Your task to perform on an android device: clear all cookies in the chrome app Image 0: 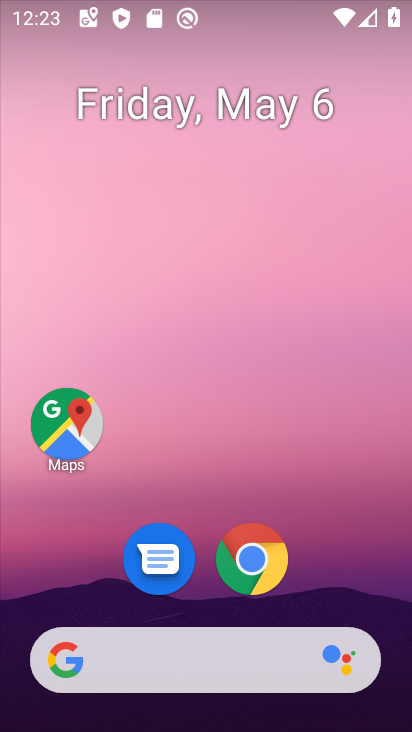
Step 0: click (242, 548)
Your task to perform on an android device: clear all cookies in the chrome app Image 1: 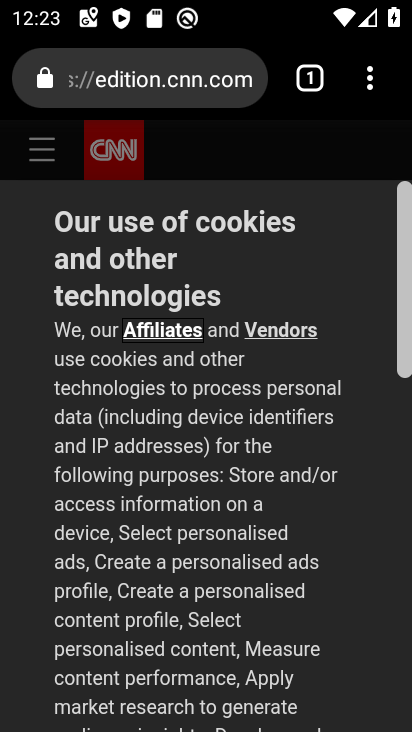
Step 1: click (369, 85)
Your task to perform on an android device: clear all cookies in the chrome app Image 2: 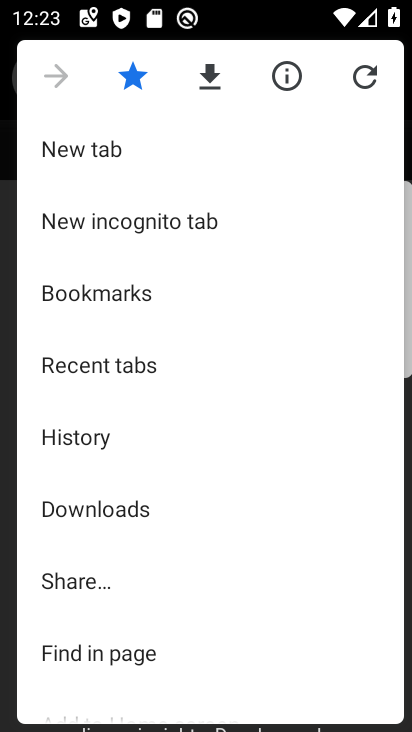
Step 2: click (86, 429)
Your task to perform on an android device: clear all cookies in the chrome app Image 3: 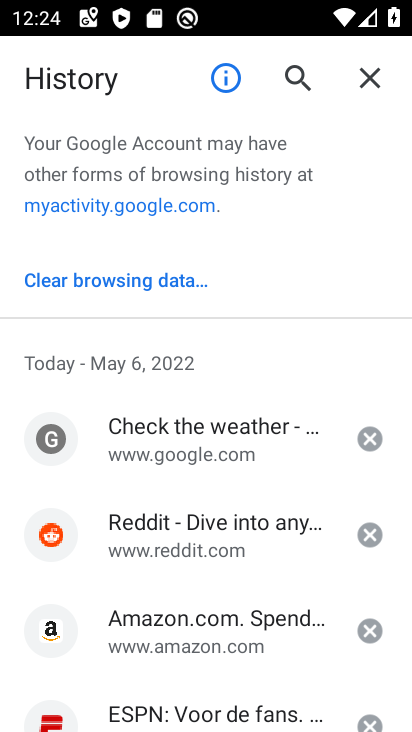
Step 3: click (120, 280)
Your task to perform on an android device: clear all cookies in the chrome app Image 4: 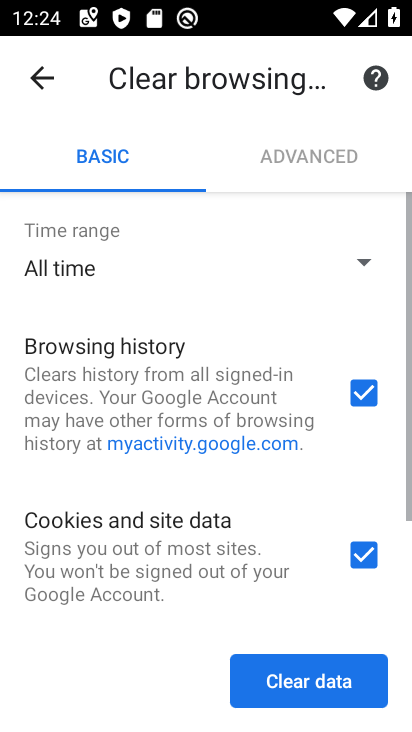
Step 4: click (228, 401)
Your task to perform on an android device: clear all cookies in the chrome app Image 5: 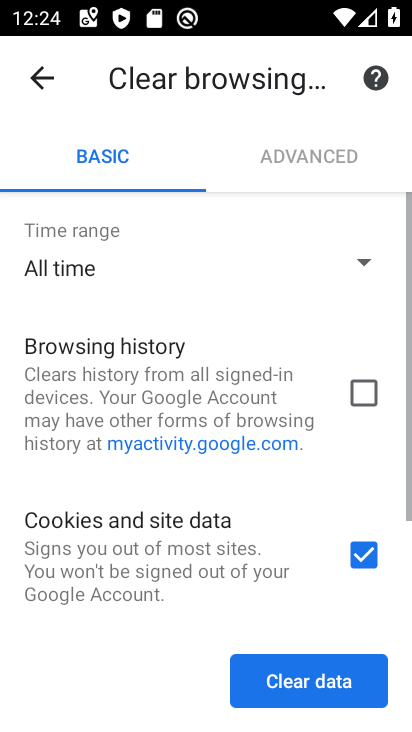
Step 5: drag from (202, 566) to (213, 257)
Your task to perform on an android device: clear all cookies in the chrome app Image 6: 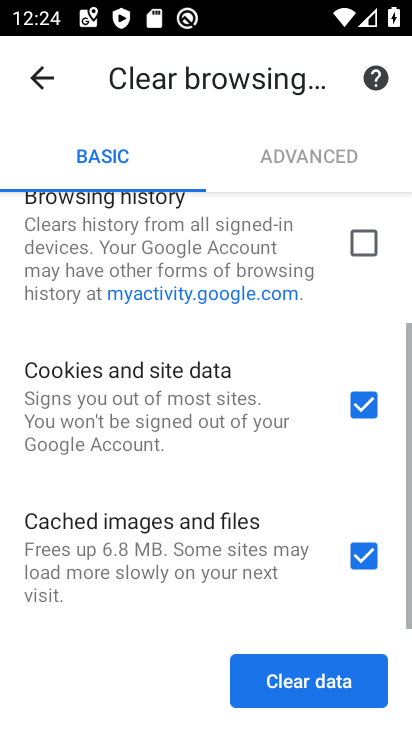
Step 6: click (296, 528)
Your task to perform on an android device: clear all cookies in the chrome app Image 7: 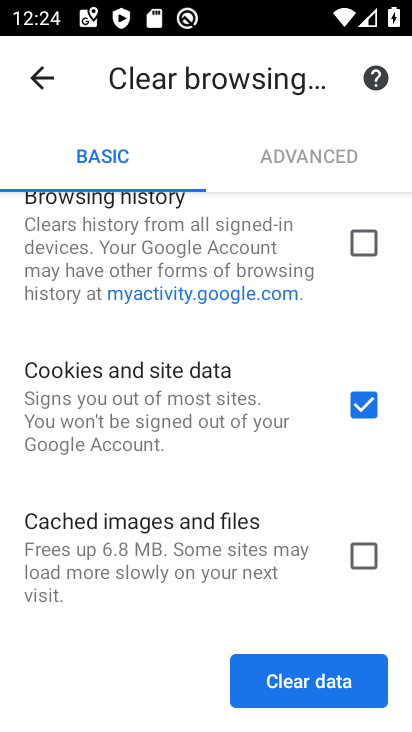
Step 7: click (322, 672)
Your task to perform on an android device: clear all cookies in the chrome app Image 8: 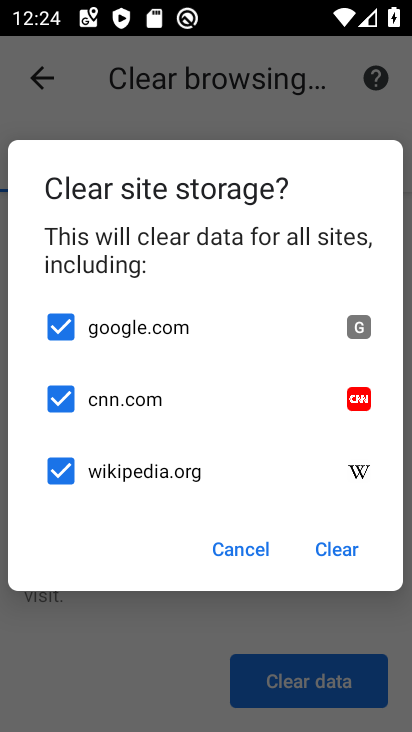
Step 8: click (331, 542)
Your task to perform on an android device: clear all cookies in the chrome app Image 9: 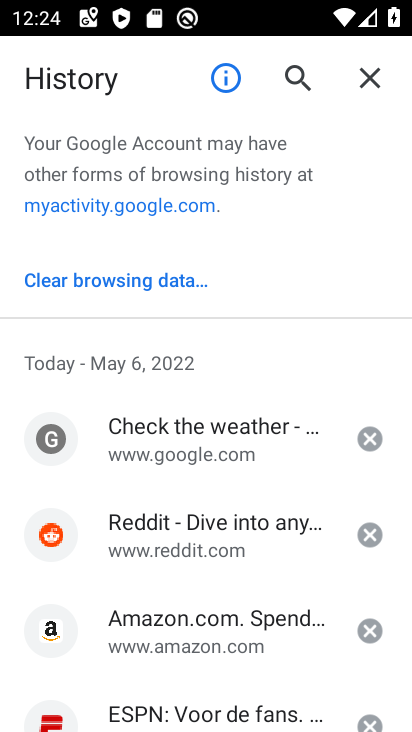
Step 9: task complete